Your task to perform on an android device: Open Google Maps Image 0: 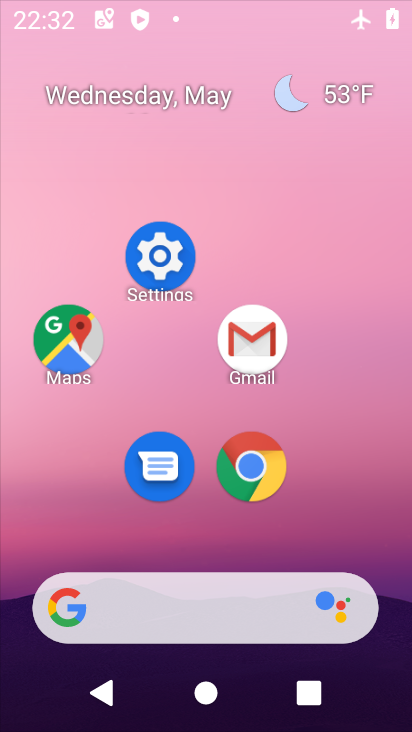
Step 0: drag from (192, 533) to (190, 375)
Your task to perform on an android device: Open Google Maps Image 1: 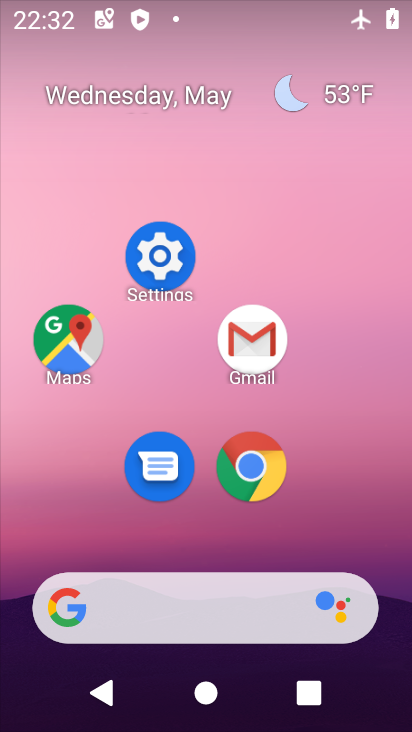
Step 1: drag from (207, 551) to (235, 144)
Your task to perform on an android device: Open Google Maps Image 2: 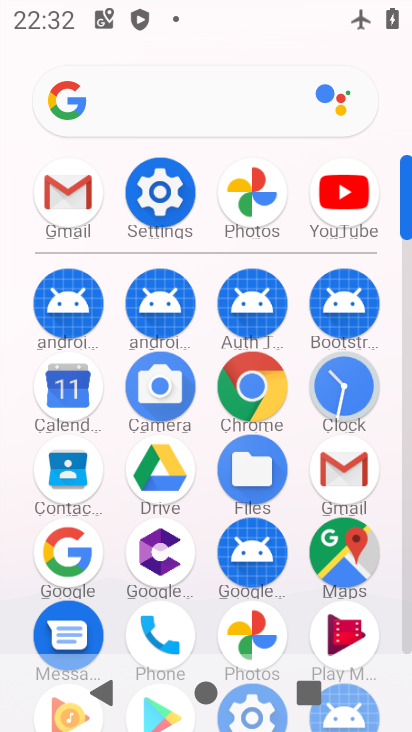
Step 2: click (325, 543)
Your task to perform on an android device: Open Google Maps Image 3: 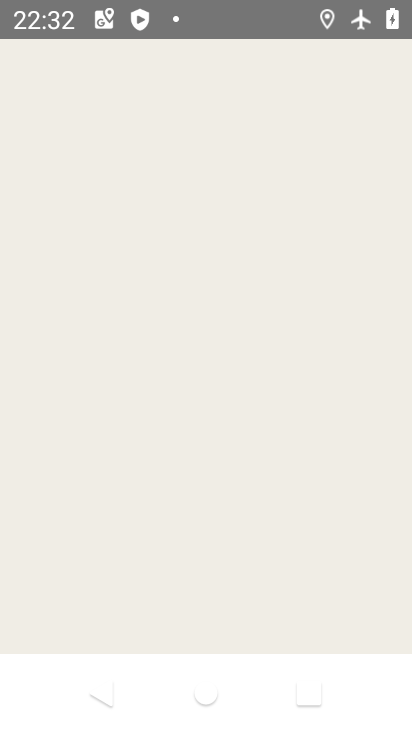
Step 3: drag from (221, 585) to (232, 433)
Your task to perform on an android device: Open Google Maps Image 4: 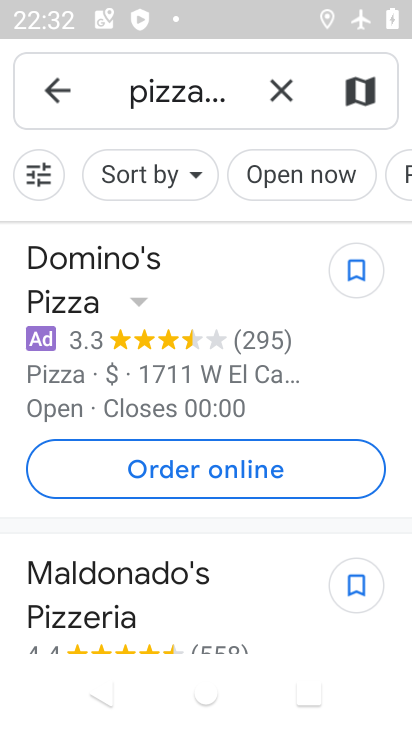
Step 4: click (257, 258)
Your task to perform on an android device: Open Google Maps Image 5: 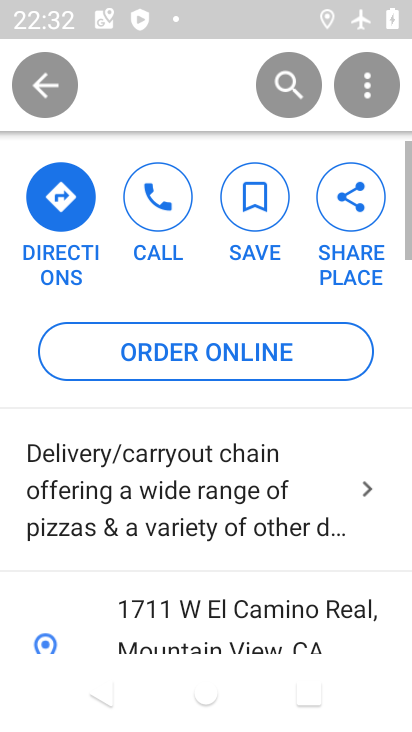
Step 5: drag from (251, 600) to (271, 226)
Your task to perform on an android device: Open Google Maps Image 6: 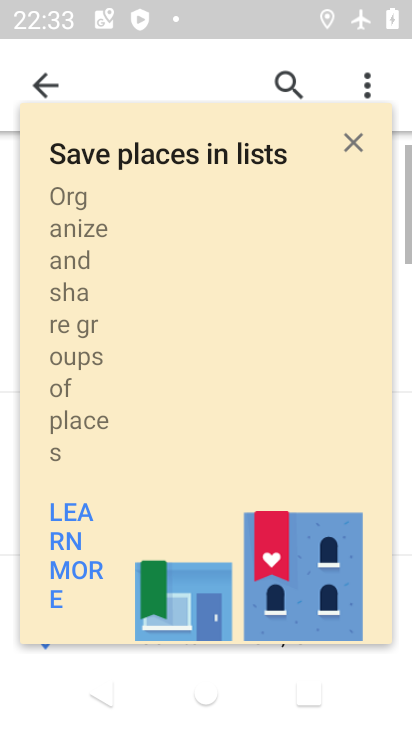
Step 6: click (339, 152)
Your task to perform on an android device: Open Google Maps Image 7: 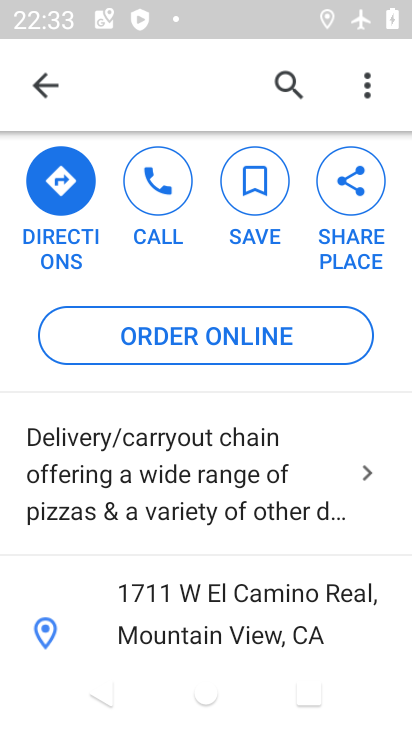
Step 7: task complete